Your task to perform on an android device: Go to sound settings Image 0: 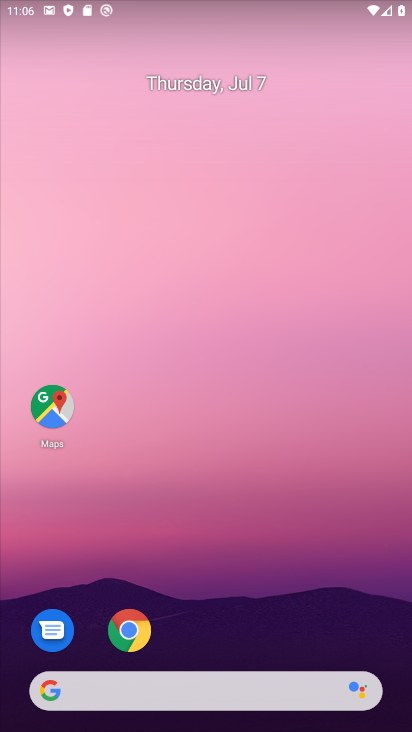
Step 0: drag from (243, 615) to (216, 182)
Your task to perform on an android device: Go to sound settings Image 1: 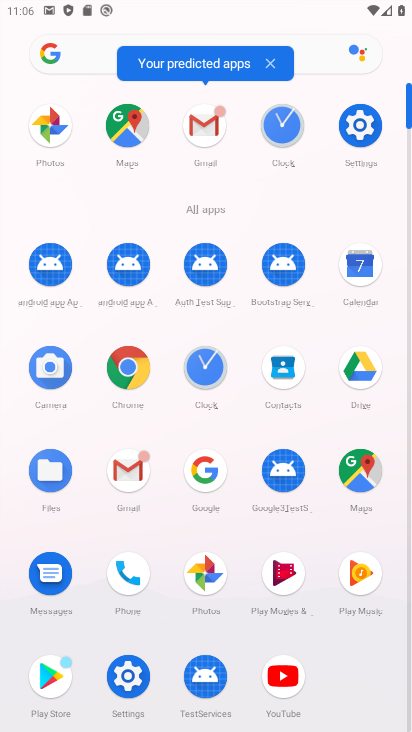
Step 1: click (354, 139)
Your task to perform on an android device: Go to sound settings Image 2: 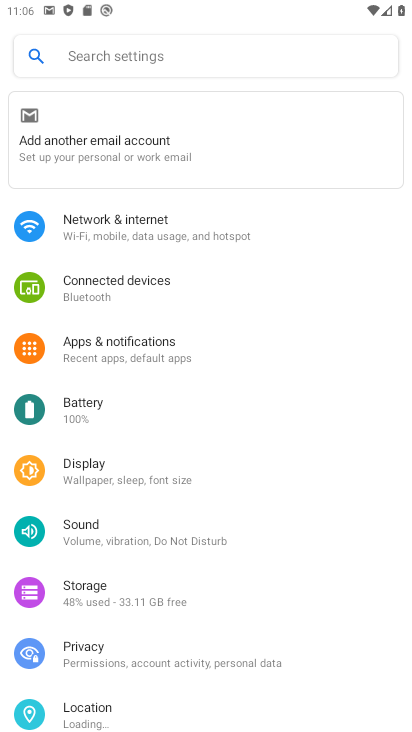
Step 2: click (114, 538)
Your task to perform on an android device: Go to sound settings Image 3: 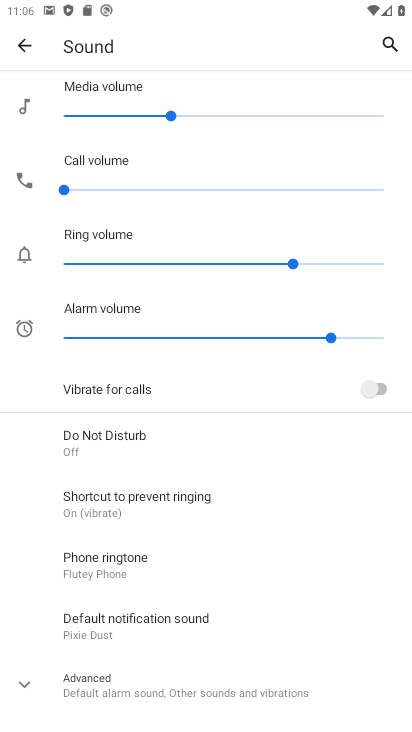
Step 3: task complete